Your task to perform on an android device: Go to internet settings Image 0: 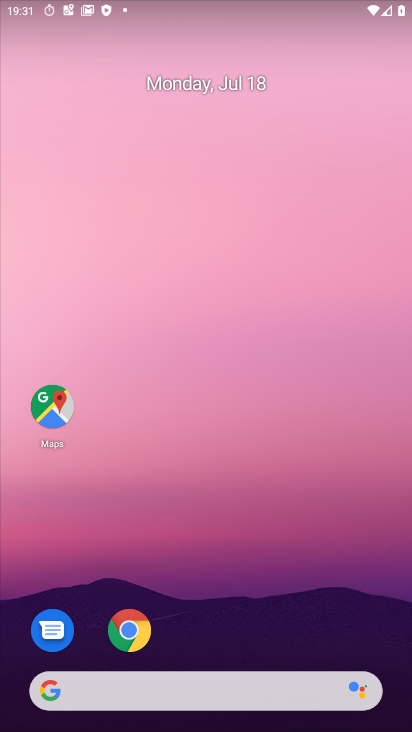
Step 0: drag from (234, 556) to (195, 6)
Your task to perform on an android device: Go to internet settings Image 1: 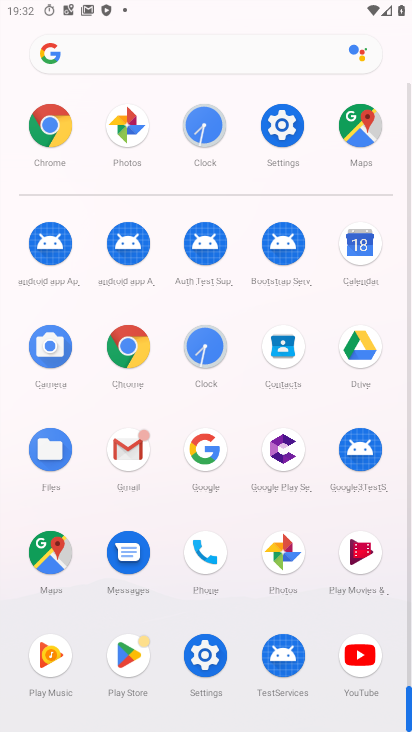
Step 1: click (279, 116)
Your task to perform on an android device: Go to internet settings Image 2: 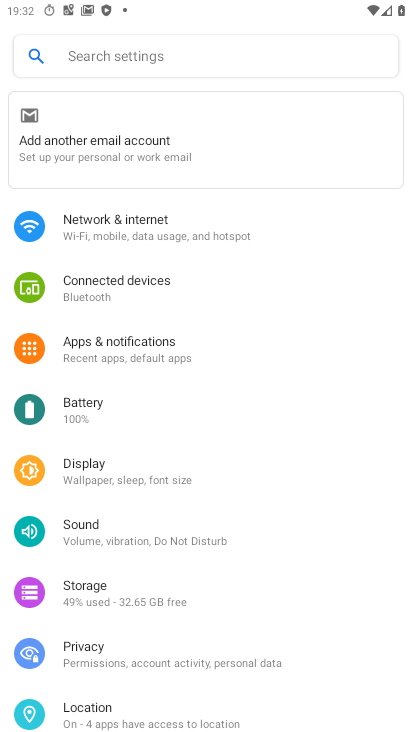
Step 2: click (152, 240)
Your task to perform on an android device: Go to internet settings Image 3: 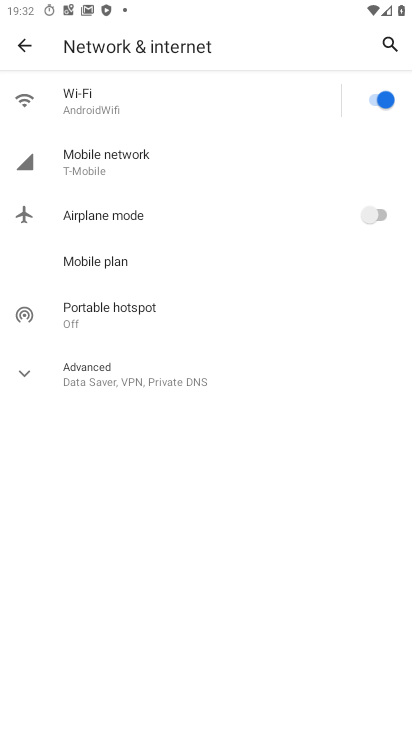
Step 3: click (121, 157)
Your task to perform on an android device: Go to internet settings Image 4: 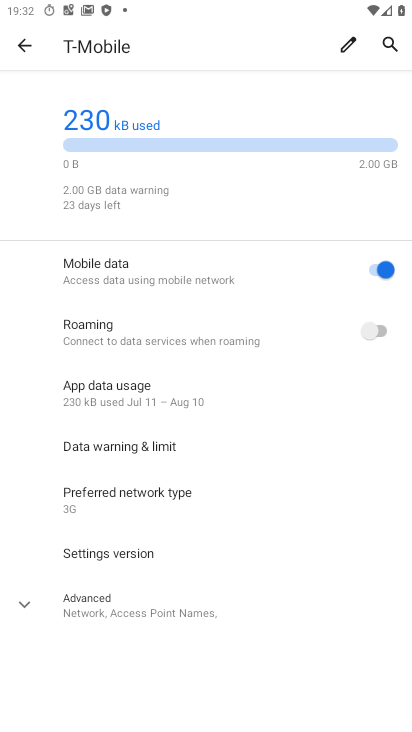
Step 4: task complete